Your task to perform on an android device: see sites visited before in the chrome app Image 0: 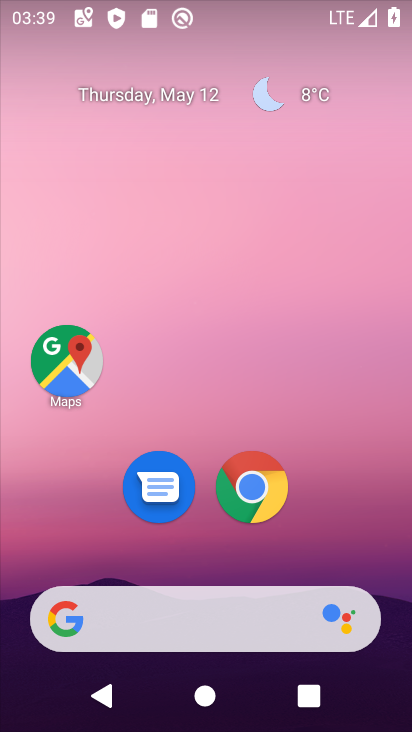
Step 0: click (263, 484)
Your task to perform on an android device: see sites visited before in the chrome app Image 1: 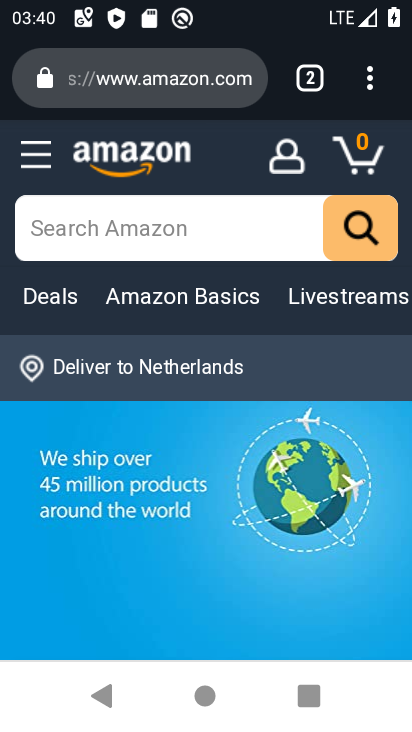
Step 1: click (375, 79)
Your task to perform on an android device: see sites visited before in the chrome app Image 2: 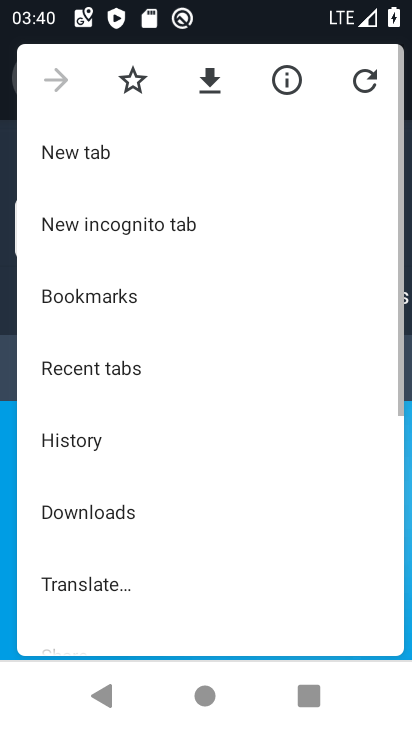
Step 2: drag from (233, 515) to (228, 148)
Your task to perform on an android device: see sites visited before in the chrome app Image 3: 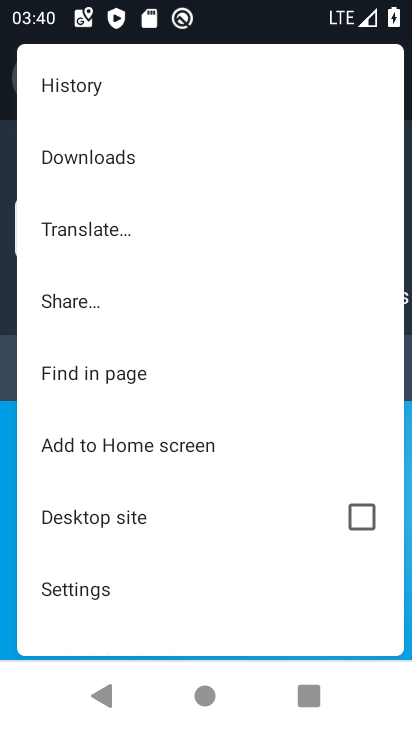
Step 3: drag from (199, 555) to (246, 185)
Your task to perform on an android device: see sites visited before in the chrome app Image 4: 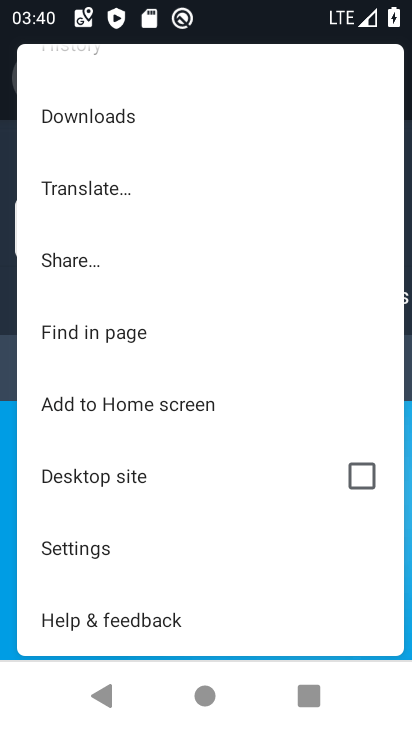
Step 4: drag from (182, 242) to (198, 654)
Your task to perform on an android device: see sites visited before in the chrome app Image 5: 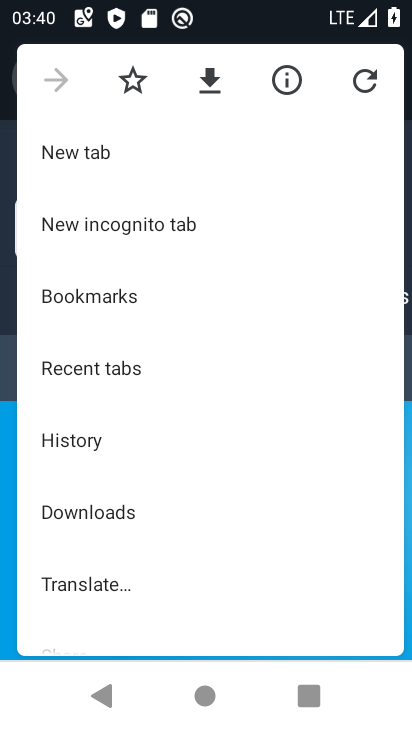
Step 5: click (108, 445)
Your task to perform on an android device: see sites visited before in the chrome app Image 6: 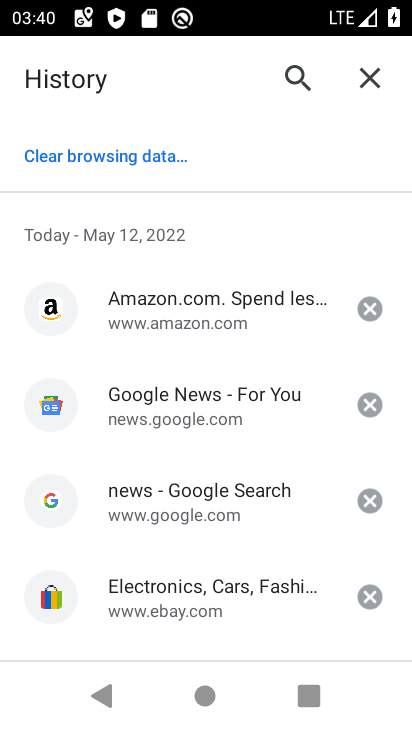
Step 6: task complete